Your task to perform on an android device: Open Google Maps and go to "Timeline" Image 0: 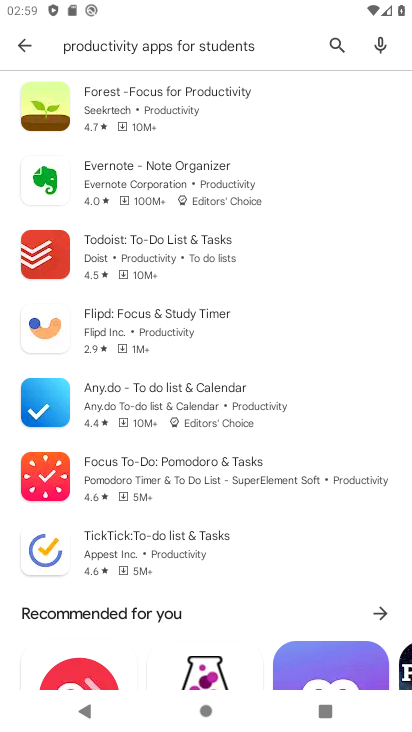
Step 0: press home button
Your task to perform on an android device: Open Google Maps and go to "Timeline" Image 1: 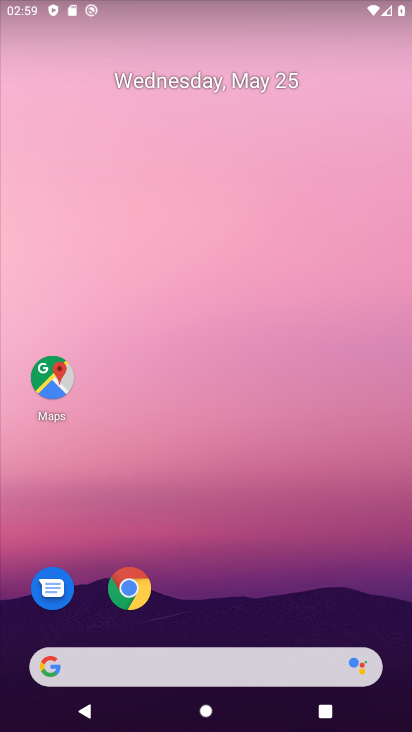
Step 1: click (136, 590)
Your task to perform on an android device: Open Google Maps and go to "Timeline" Image 2: 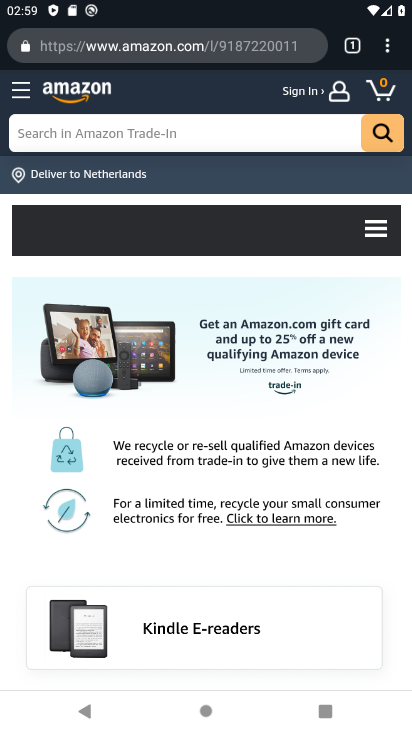
Step 2: press home button
Your task to perform on an android device: Open Google Maps and go to "Timeline" Image 3: 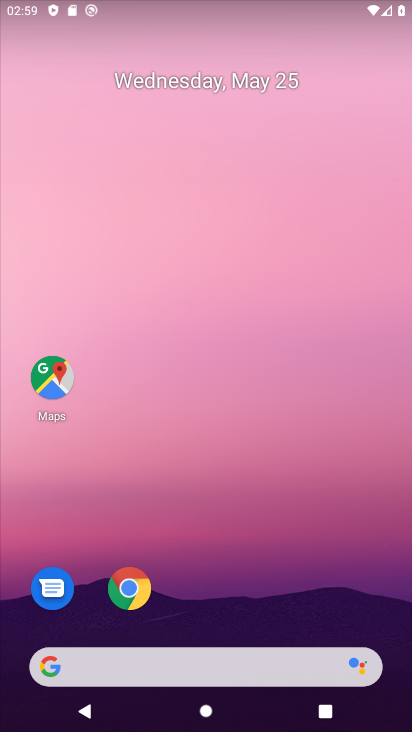
Step 3: click (49, 387)
Your task to perform on an android device: Open Google Maps and go to "Timeline" Image 4: 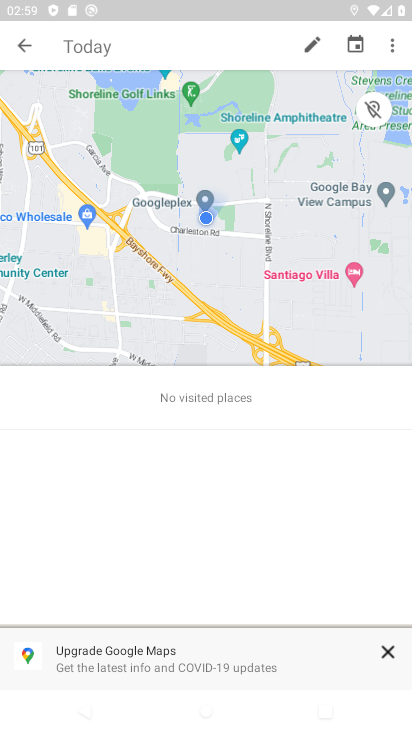
Step 4: task complete